Your task to perform on an android device: open app "ColorNote Notepad Notes" (install if not already installed) Image 0: 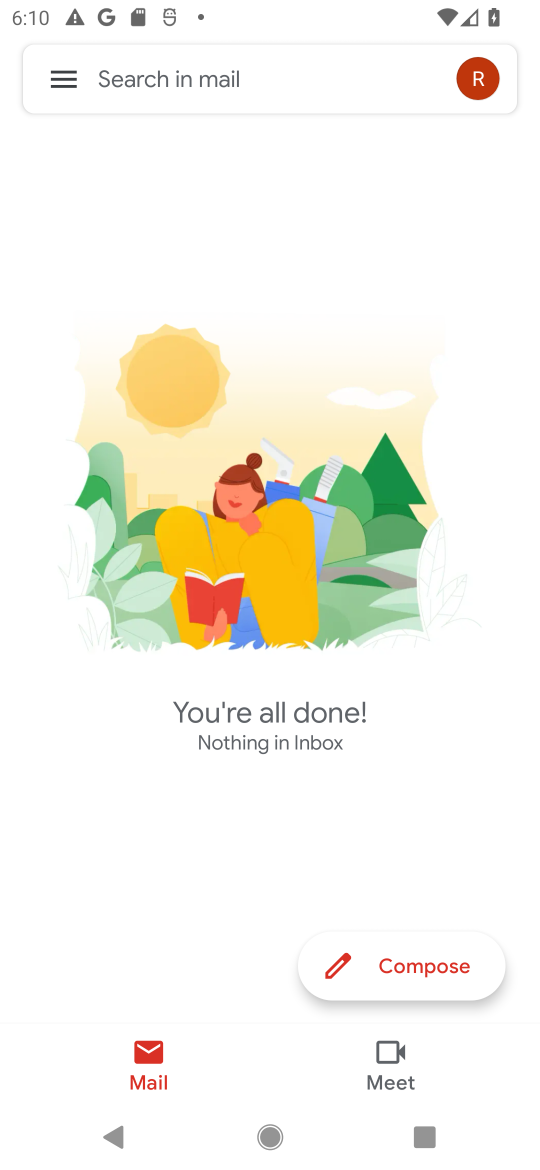
Step 0: press home button
Your task to perform on an android device: open app "ColorNote Notepad Notes" (install if not already installed) Image 1: 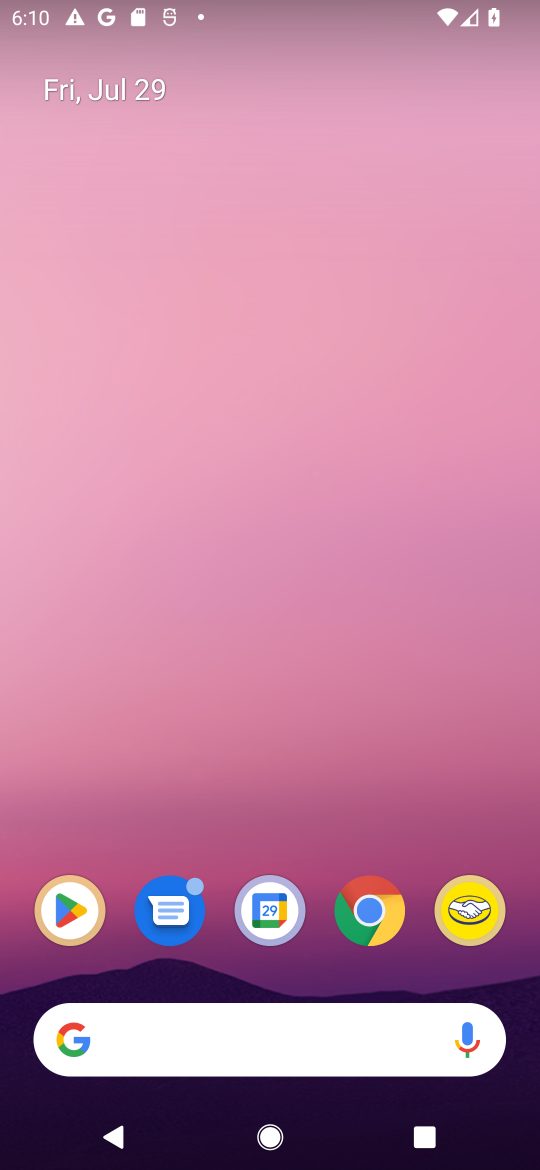
Step 1: drag from (233, 937) to (277, 321)
Your task to perform on an android device: open app "ColorNote Notepad Notes" (install if not already installed) Image 2: 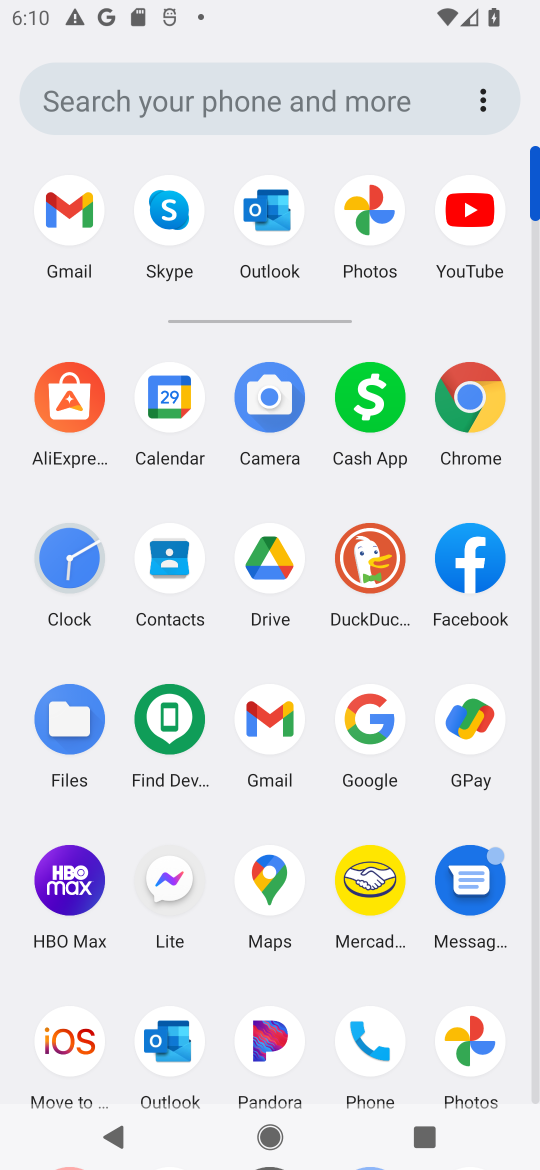
Step 2: drag from (218, 990) to (275, 376)
Your task to perform on an android device: open app "ColorNote Notepad Notes" (install if not already installed) Image 3: 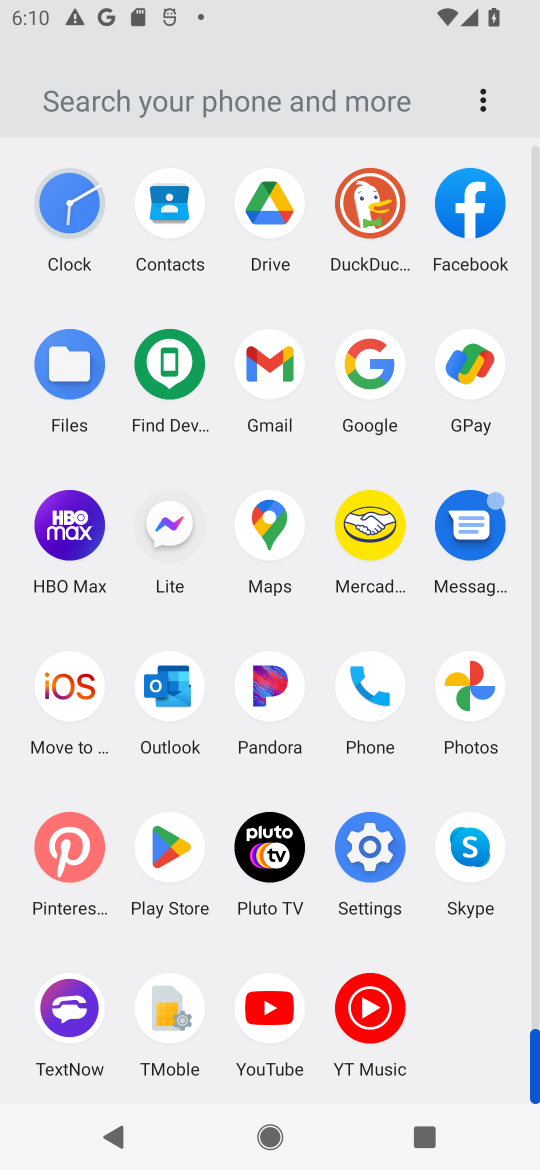
Step 3: click (162, 852)
Your task to perform on an android device: open app "ColorNote Notepad Notes" (install if not already installed) Image 4: 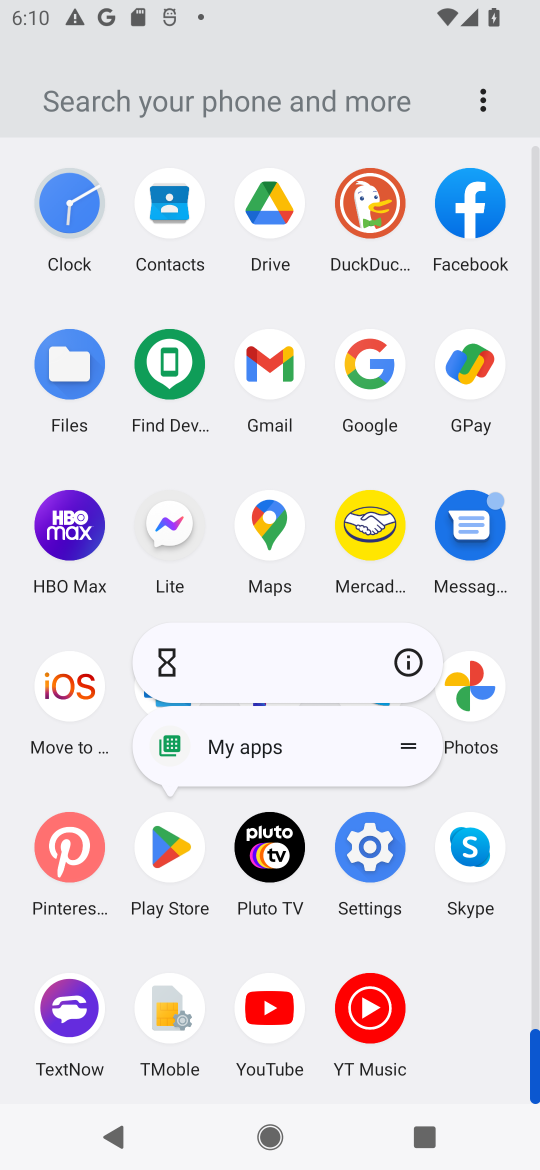
Step 4: click (177, 852)
Your task to perform on an android device: open app "ColorNote Notepad Notes" (install if not already installed) Image 5: 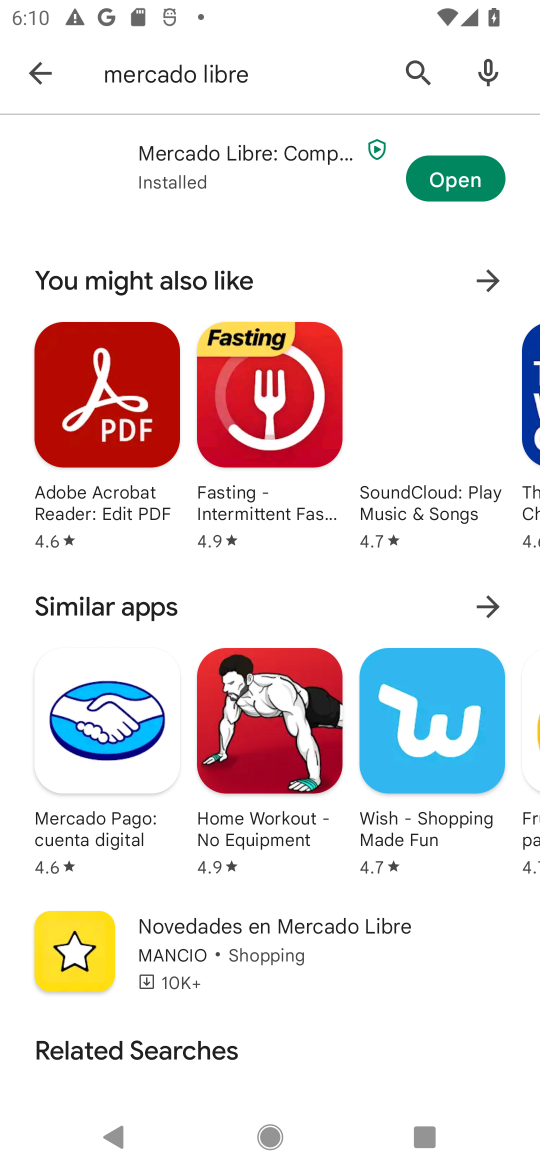
Step 5: click (420, 66)
Your task to perform on an android device: open app "ColorNote Notepad Notes" (install if not already installed) Image 6: 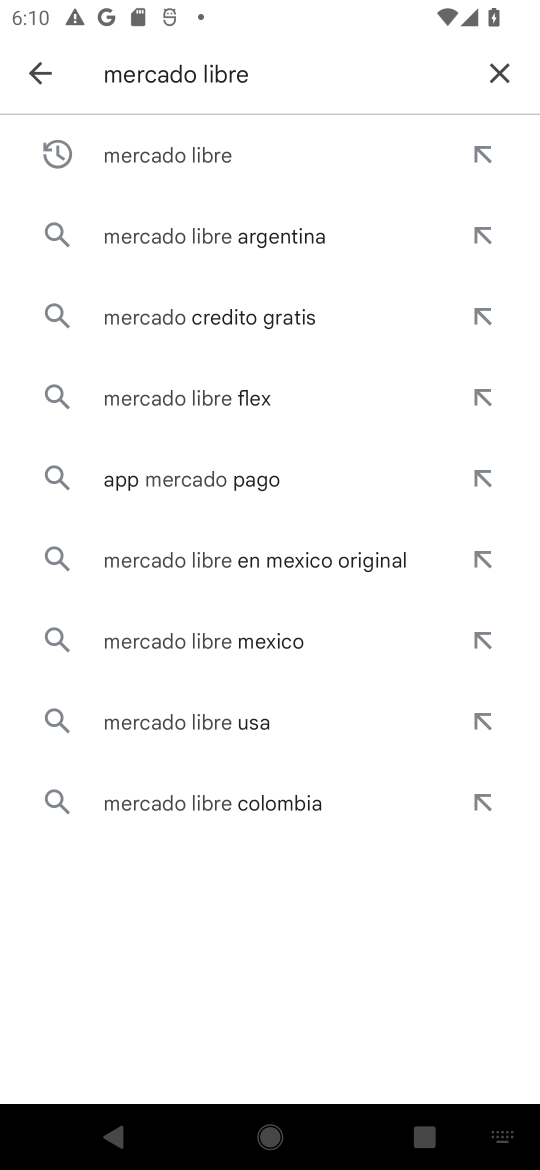
Step 6: click (491, 78)
Your task to perform on an android device: open app "ColorNote Notepad Notes" (install if not already installed) Image 7: 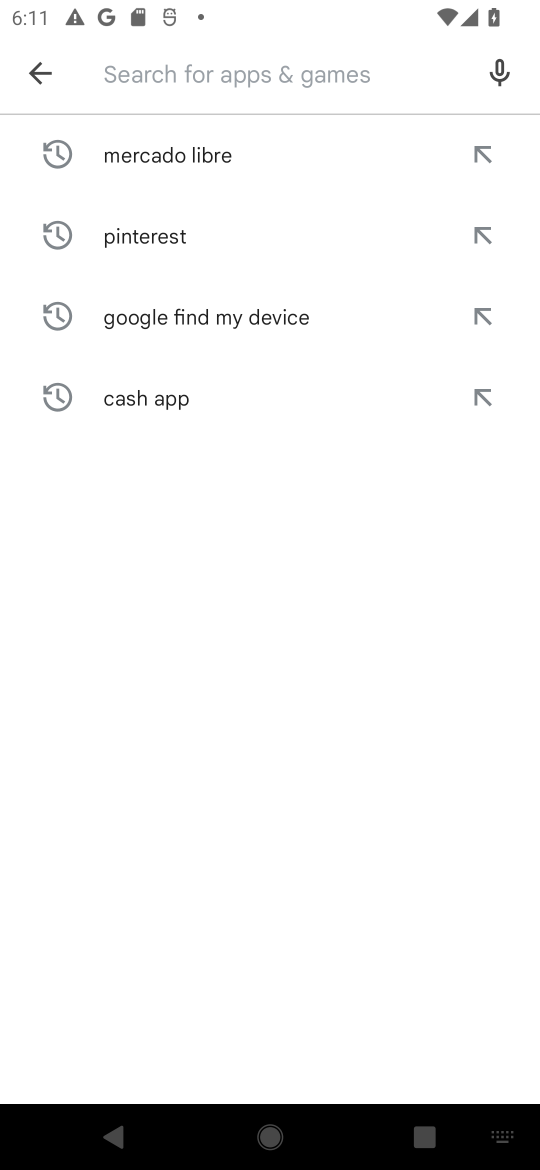
Step 7: type "ColorNote Notepad Notes"
Your task to perform on an android device: open app "ColorNote Notepad Notes" (install if not already installed) Image 8: 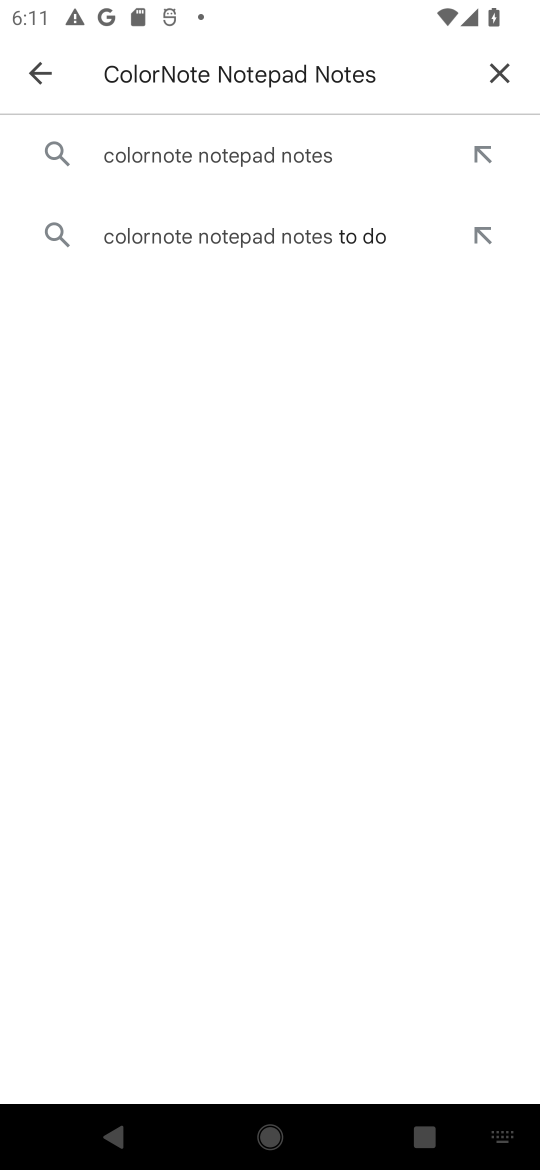
Step 8: click (302, 153)
Your task to perform on an android device: open app "ColorNote Notepad Notes" (install if not already installed) Image 9: 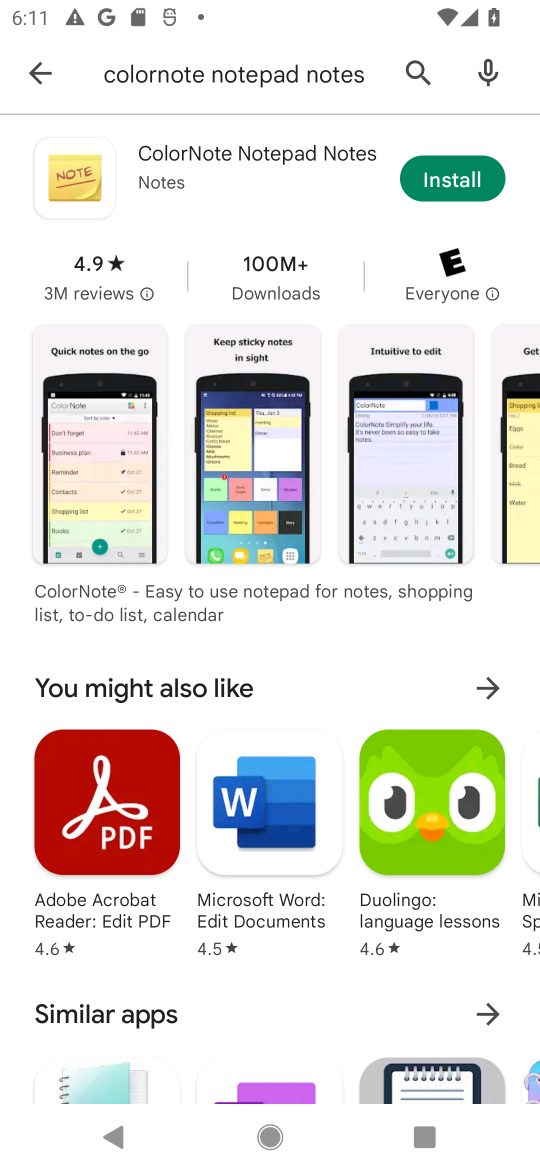
Step 9: click (457, 188)
Your task to perform on an android device: open app "ColorNote Notepad Notes" (install if not already installed) Image 10: 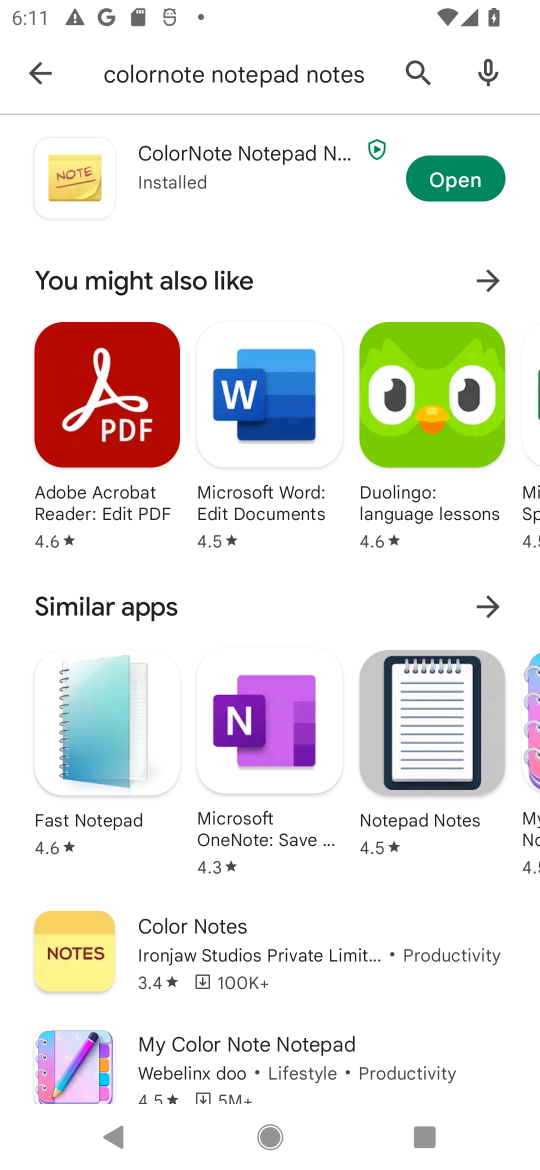
Step 10: click (462, 177)
Your task to perform on an android device: open app "ColorNote Notepad Notes" (install if not already installed) Image 11: 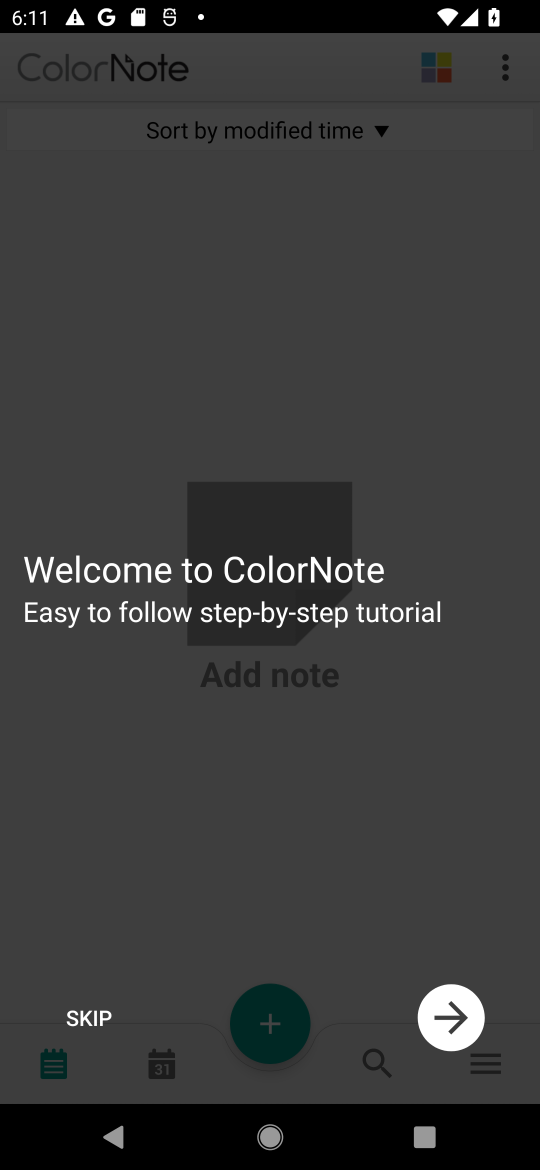
Step 11: task complete